Your task to perform on an android device: See recent photos Image 0: 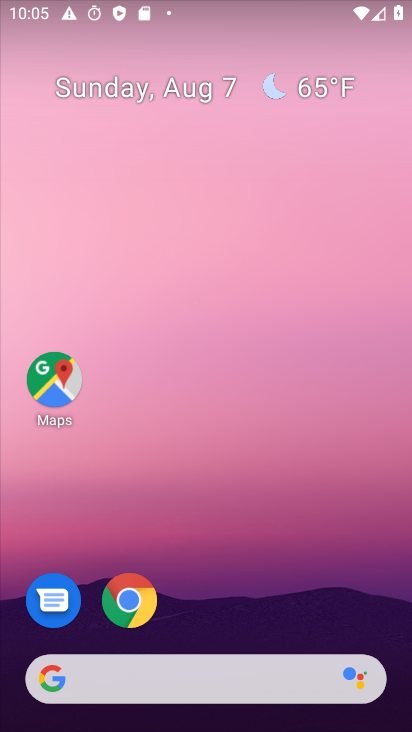
Step 0: drag from (231, 589) to (294, 97)
Your task to perform on an android device: See recent photos Image 1: 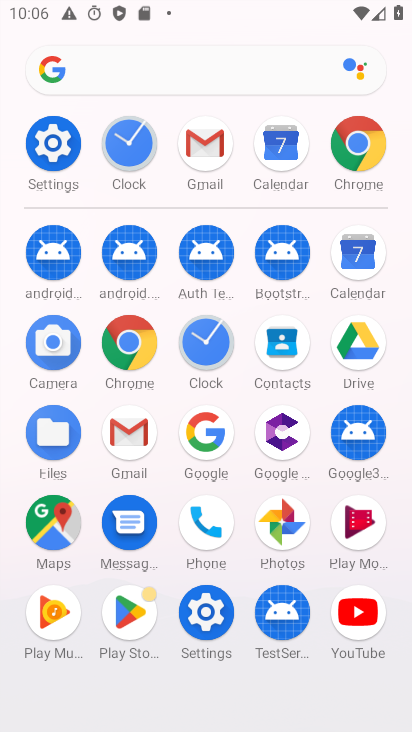
Step 1: click (278, 538)
Your task to perform on an android device: See recent photos Image 2: 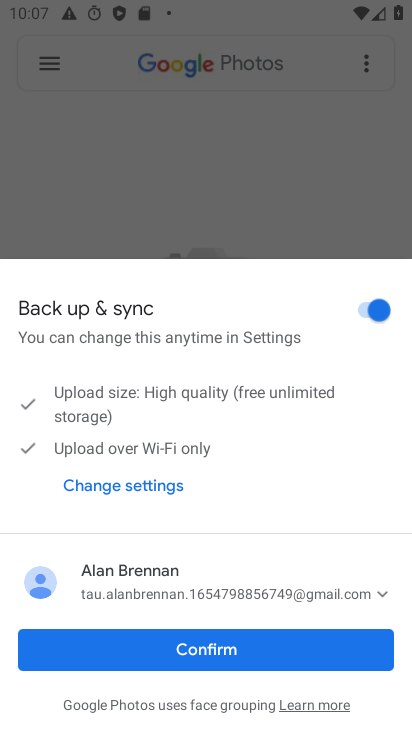
Step 2: click (220, 648)
Your task to perform on an android device: See recent photos Image 3: 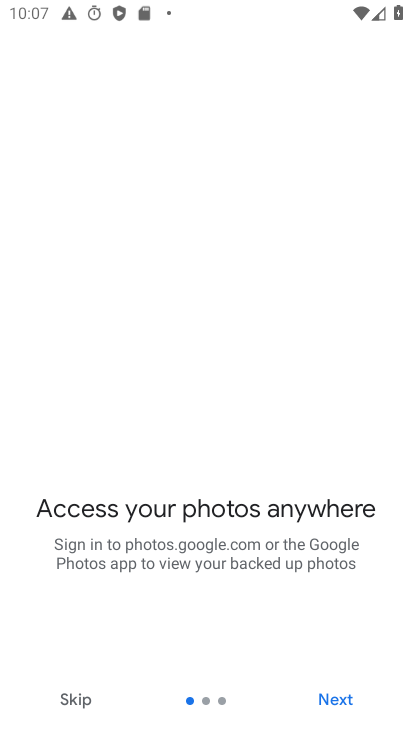
Step 3: click (319, 694)
Your task to perform on an android device: See recent photos Image 4: 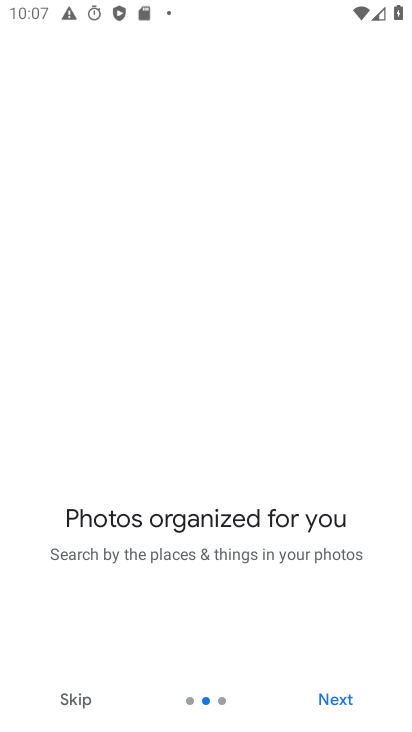
Step 4: click (320, 691)
Your task to perform on an android device: See recent photos Image 5: 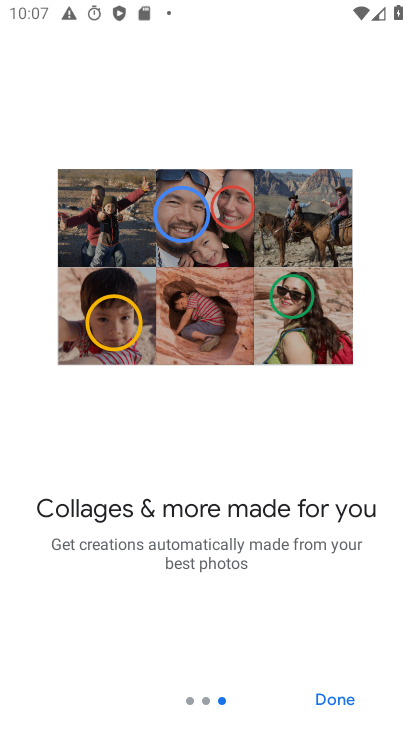
Step 5: click (331, 701)
Your task to perform on an android device: See recent photos Image 6: 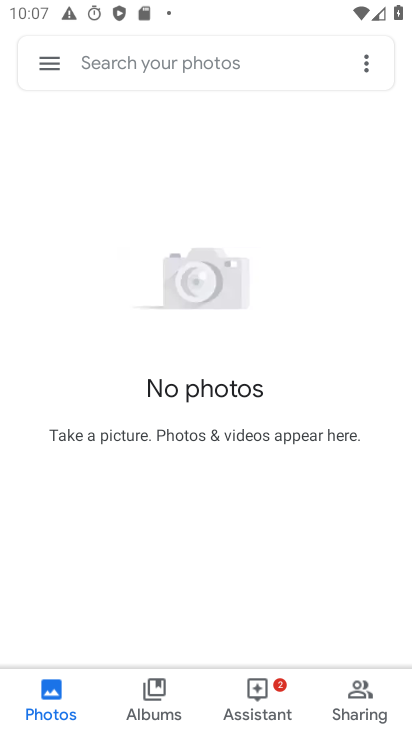
Step 6: click (325, 695)
Your task to perform on an android device: See recent photos Image 7: 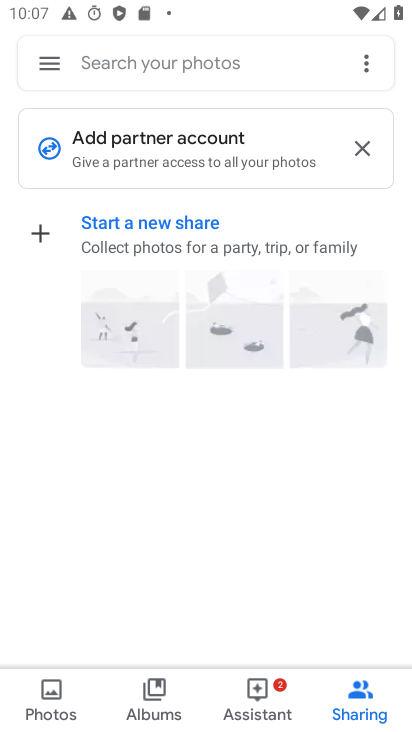
Step 7: task complete